Your task to perform on an android device: turn on priority inbox in the gmail app Image 0: 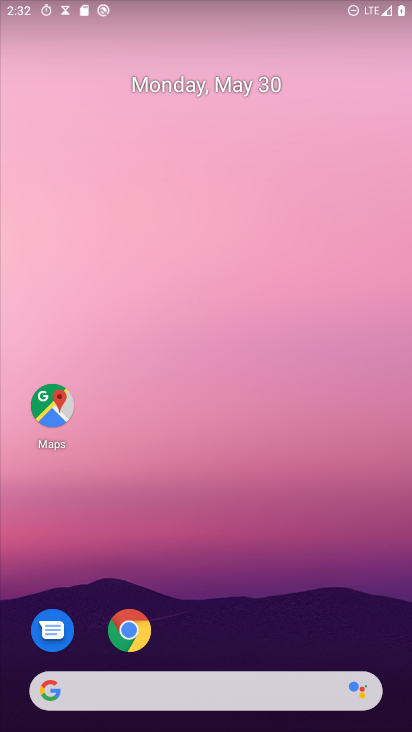
Step 0: press home button
Your task to perform on an android device: turn on priority inbox in the gmail app Image 1: 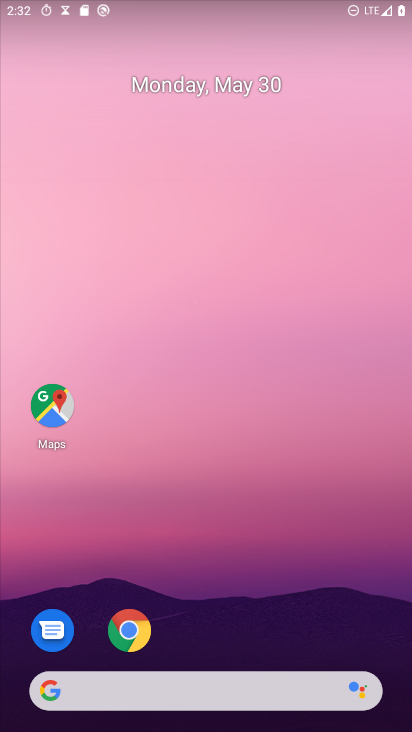
Step 1: drag from (214, 704) to (151, 111)
Your task to perform on an android device: turn on priority inbox in the gmail app Image 2: 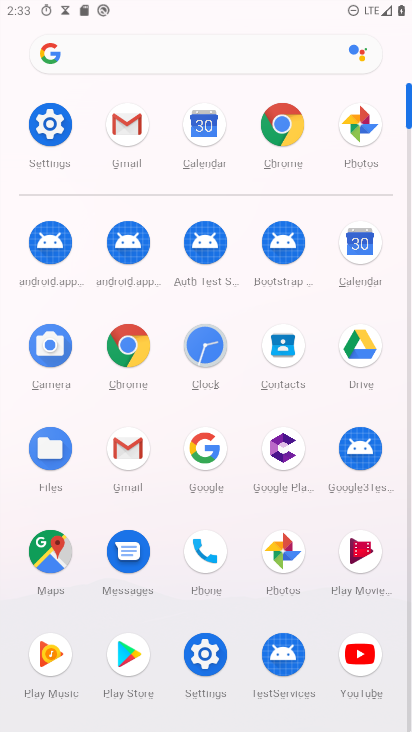
Step 2: click (144, 436)
Your task to perform on an android device: turn on priority inbox in the gmail app Image 3: 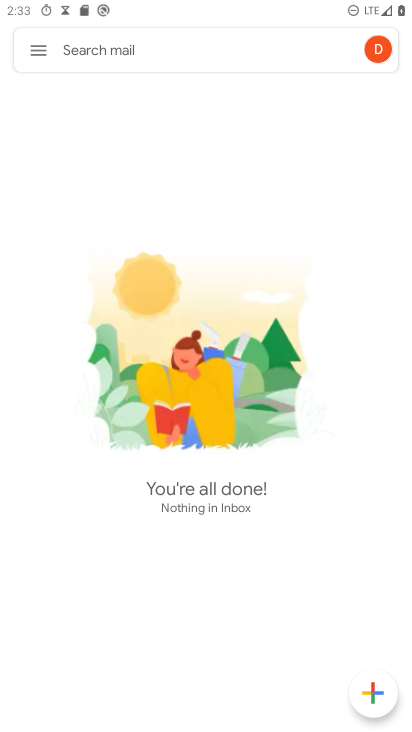
Step 3: click (36, 49)
Your task to perform on an android device: turn on priority inbox in the gmail app Image 4: 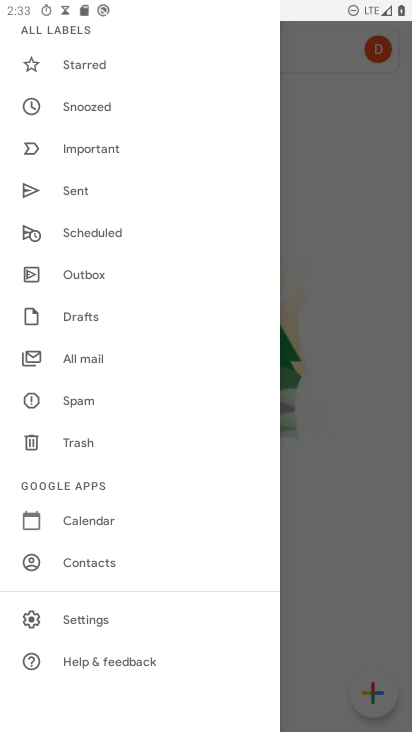
Step 4: click (77, 628)
Your task to perform on an android device: turn on priority inbox in the gmail app Image 5: 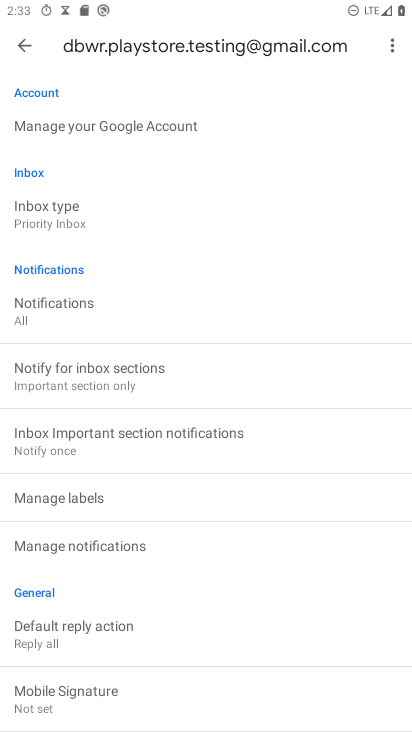
Step 5: click (91, 219)
Your task to perform on an android device: turn on priority inbox in the gmail app Image 6: 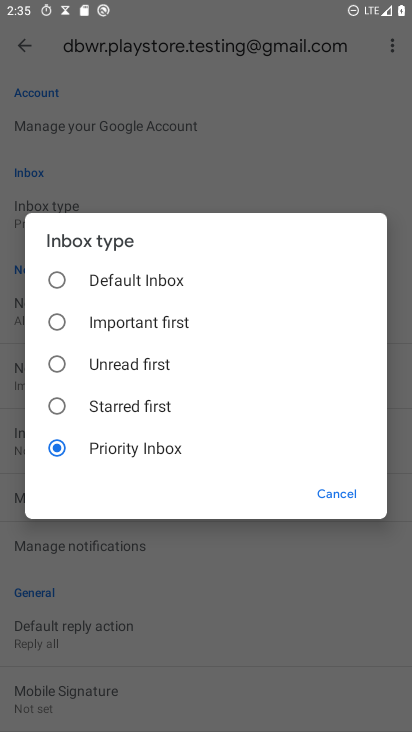
Step 6: task complete